Your task to perform on an android device: turn smart compose on in the gmail app Image 0: 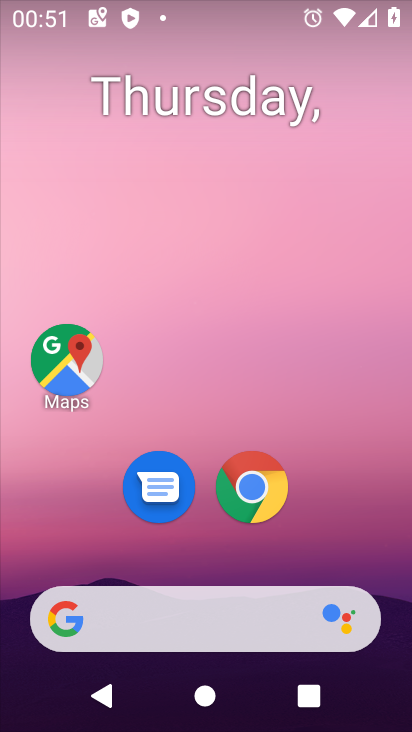
Step 0: drag from (358, 580) to (361, 0)
Your task to perform on an android device: turn smart compose on in the gmail app Image 1: 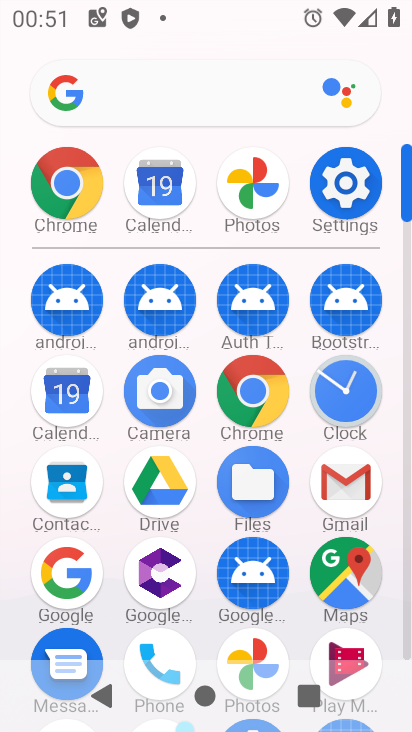
Step 1: click (332, 469)
Your task to perform on an android device: turn smart compose on in the gmail app Image 2: 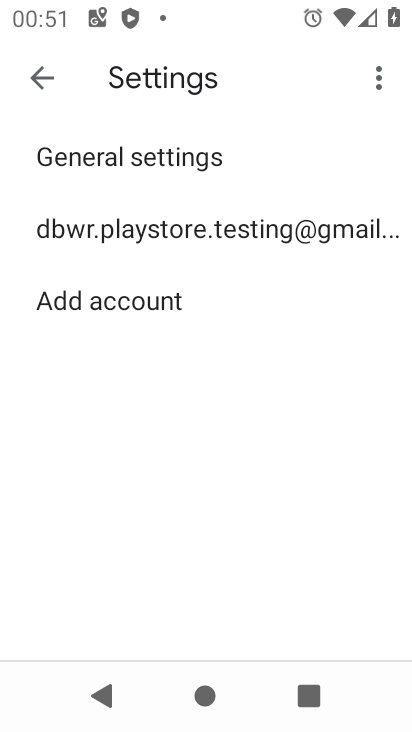
Step 2: click (131, 236)
Your task to perform on an android device: turn smart compose on in the gmail app Image 3: 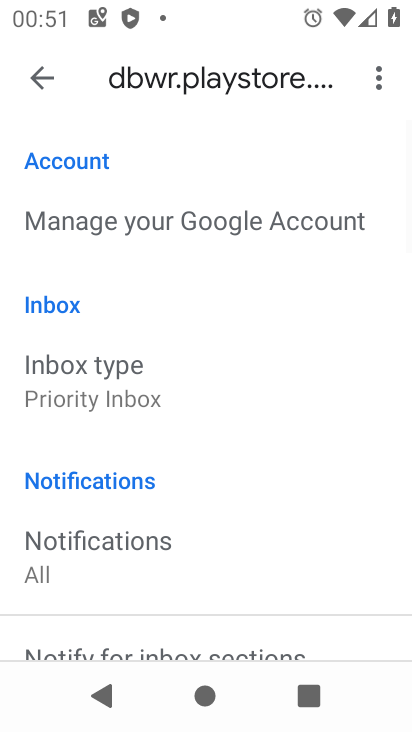
Step 3: task complete